Your task to perform on an android device: empty trash in google photos Image 0: 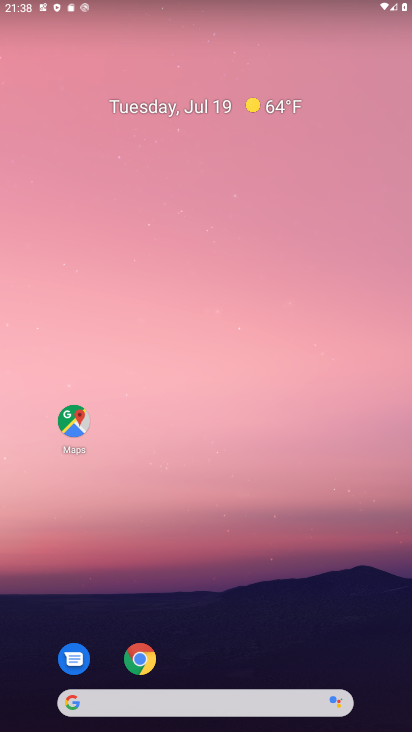
Step 0: drag from (251, 674) to (188, 241)
Your task to perform on an android device: empty trash in google photos Image 1: 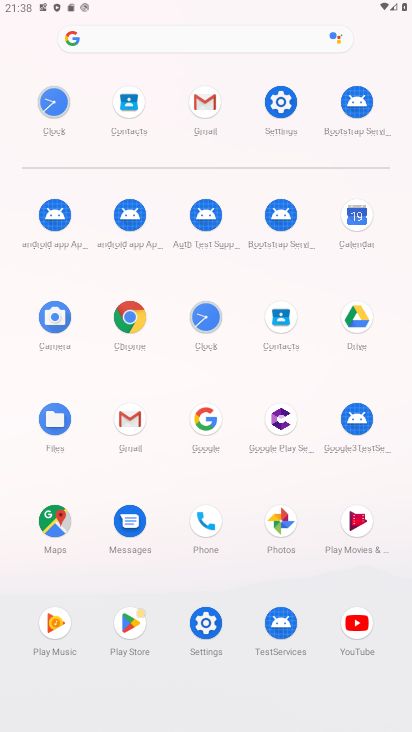
Step 1: click (272, 519)
Your task to perform on an android device: empty trash in google photos Image 2: 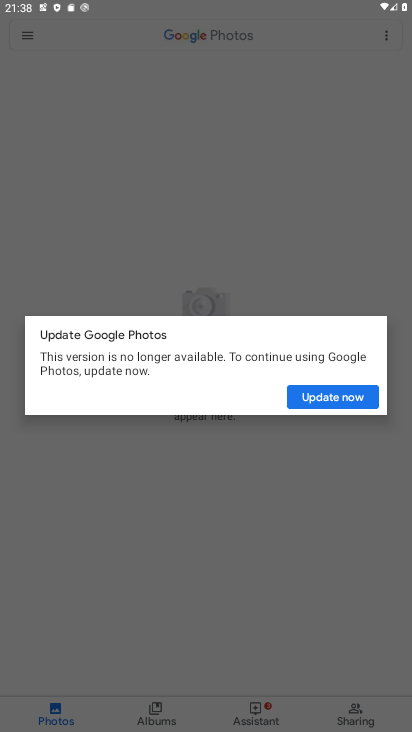
Step 2: click (318, 401)
Your task to perform on an android device: empty trash in google photos Image 3: 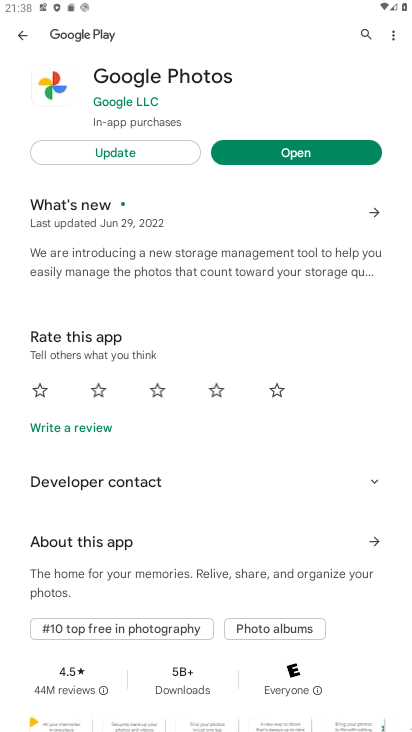
Step 3: click (289, 161)
Your task to perform on an android device: empty trash in google photos Image 4: 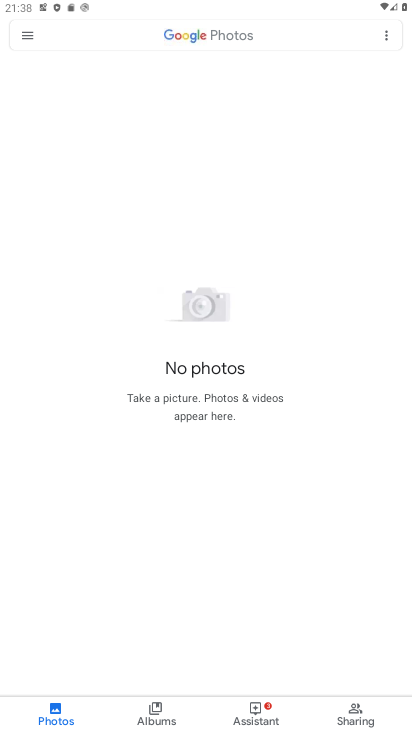
Step 4: click (44, 47)
Your task to perform on an android device: empty trash in google photos Image 5: 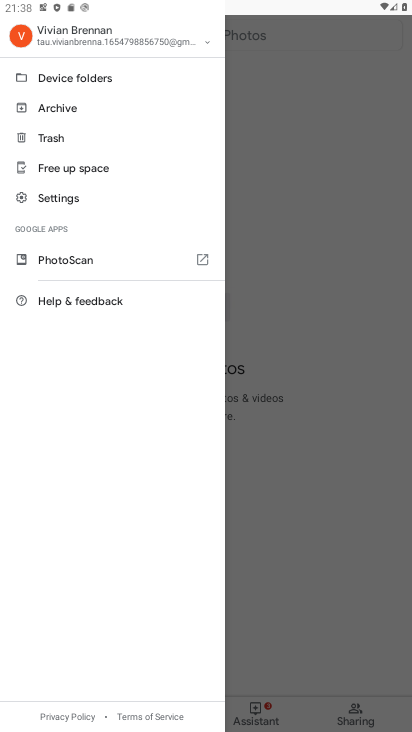
Step 5: click (65, 146)
Your task to perform on an android device: empty trash in google photos Image 6: 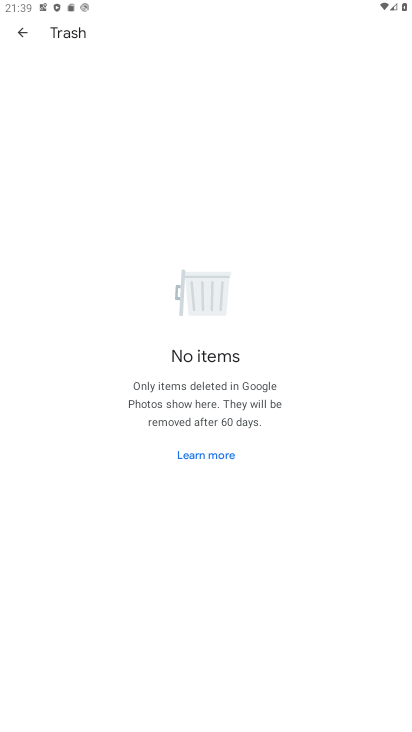
Step 6: task complete